Your task to perform on an android device: turn off smart reply in the gmail app Image 0: 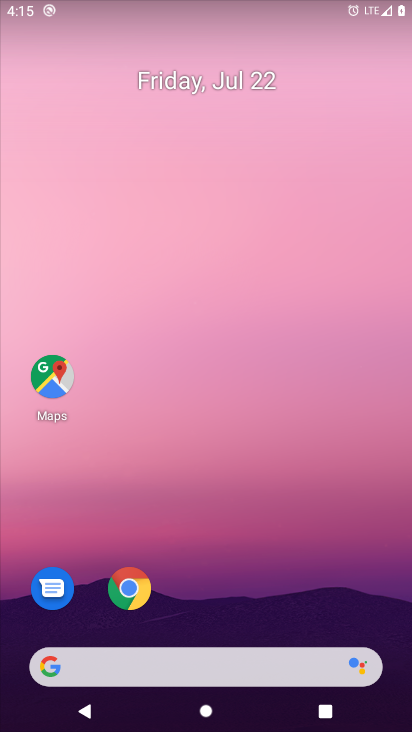
Step 0: drag from (248, 533) to (348, 35)
Your task to perform on an android device: turn off smart reply in the gmail app Image 1: 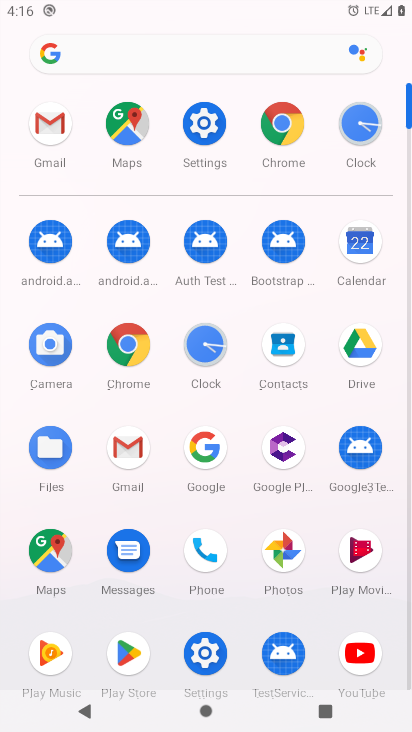
Step 1: click (50, 135)
Your task to perform on an android device: turn off smart reply in the gmail app Image 2: 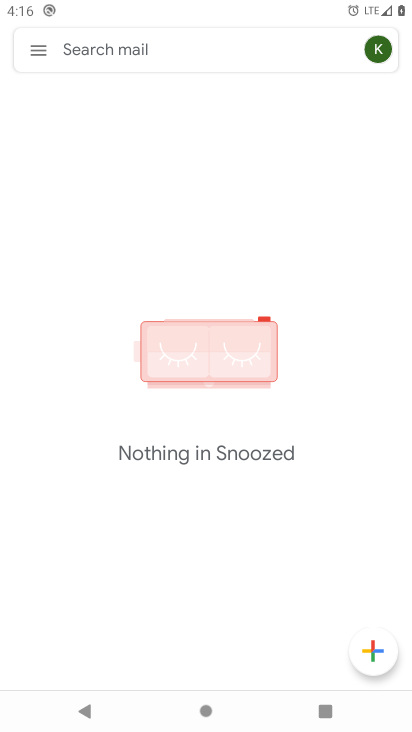
Step 2: click (38, 57)
Your task to perform on an android device: turn off smart reply in the gmail app Image 3: 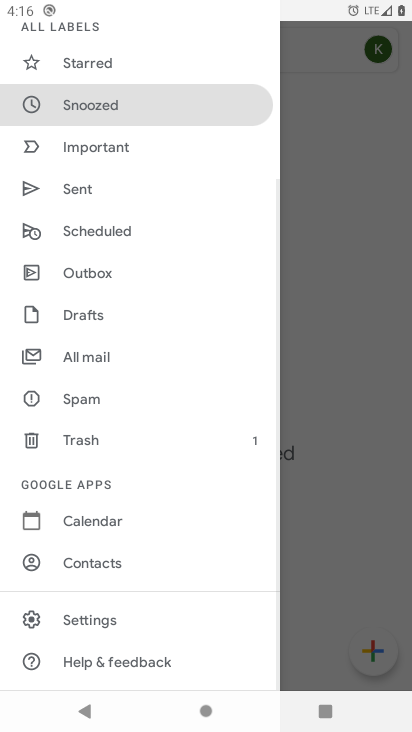
Step 3: click (95, 622)
Your task to perform on an android device: turn off smart reply in the gmail app Image 4: 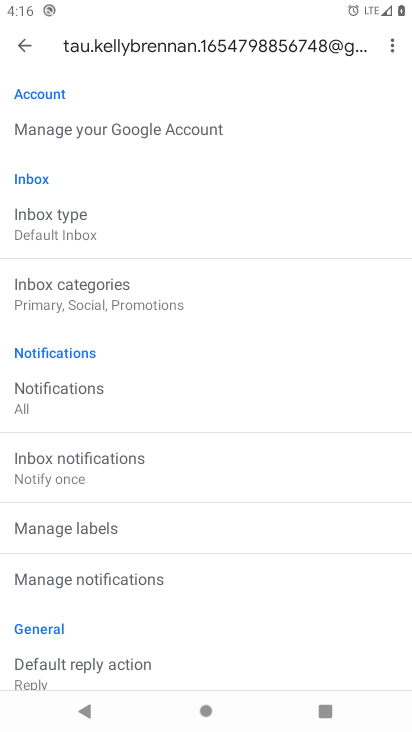
Step 4: drag from (238, 637) to (238, 308)
Your task to perform on an android device: turn off smart reply in the gmail app Image 5: 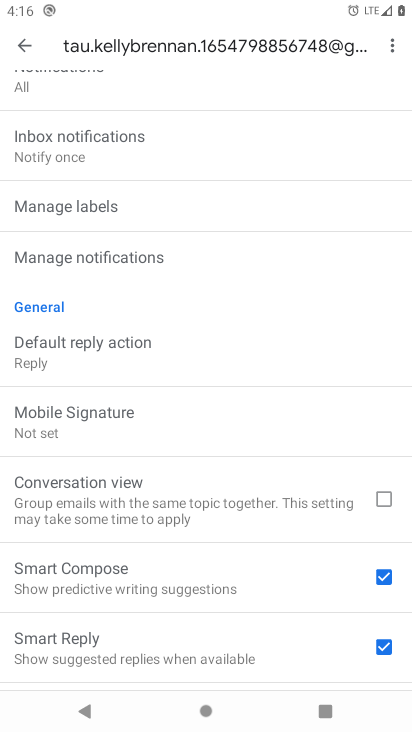
Step 5: click (331, 640)
Your task to perform on an android device: turn off smart reply in the gmail app Image 6: 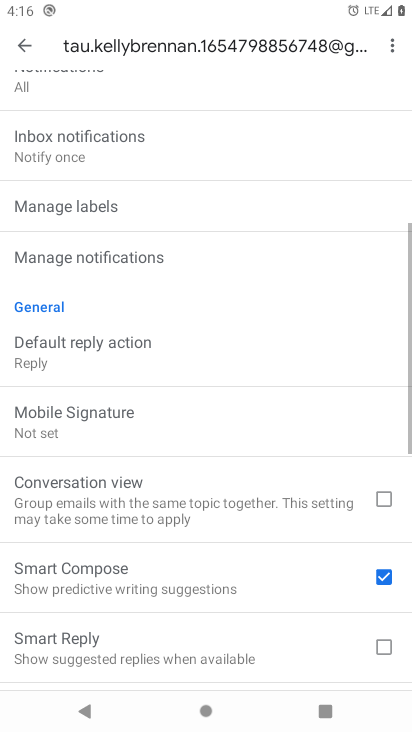
Step 6: task complete